Your task to perform on an android device: open a bookmark in the chrome app Image 0: 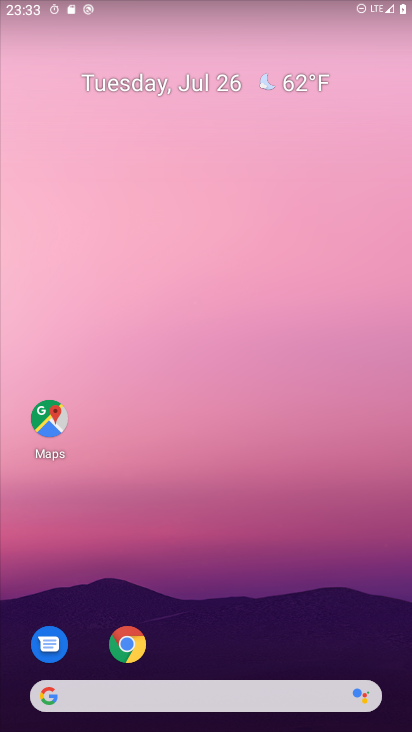
Step 0: click (126, 645)
Your task to perform on an android device: open a bookmark in the chrome app Image 1: 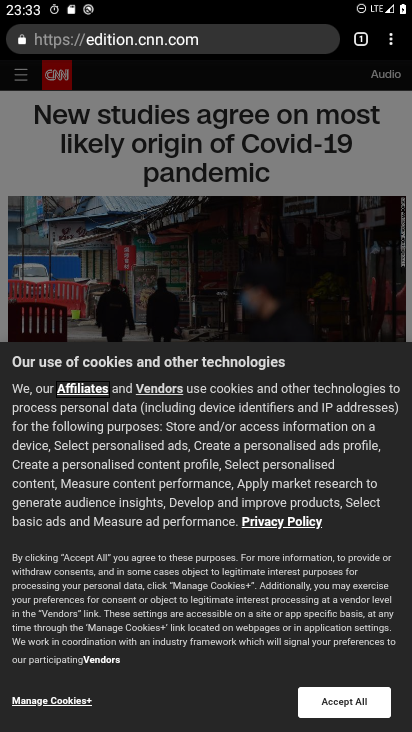
Step 1: click (395, 44)
Your task to perform on an android device: open a bookmark in the chrome app Image 2: 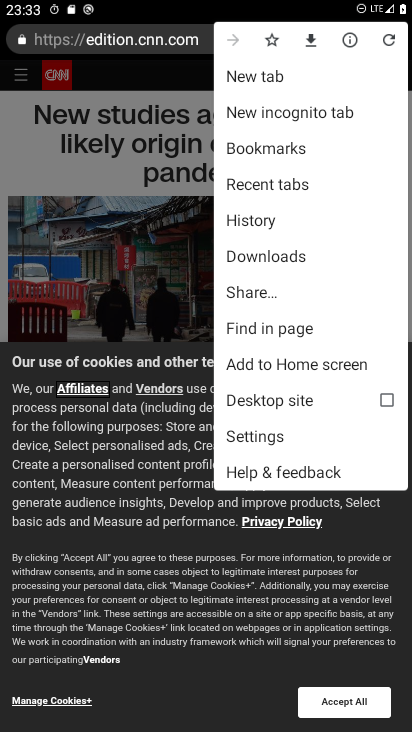
Step 2: click (256, 146)
Your task to perform on an android device: open a bookmark in the chrome app Image 3: 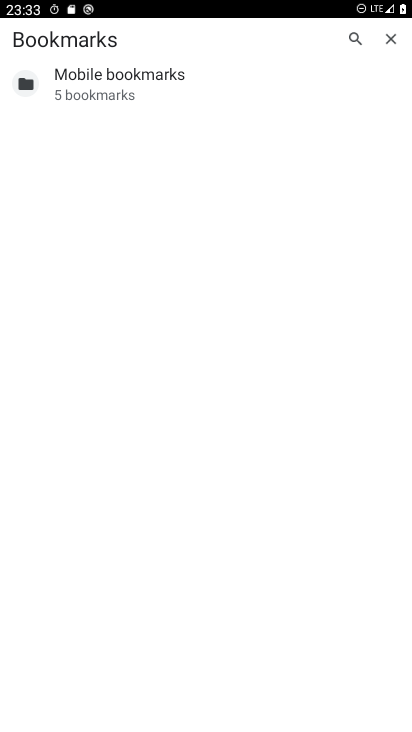
Step 3: click (122, 86)
Your task to perform on an android device: open a bookmark in the chrome app Image 4: 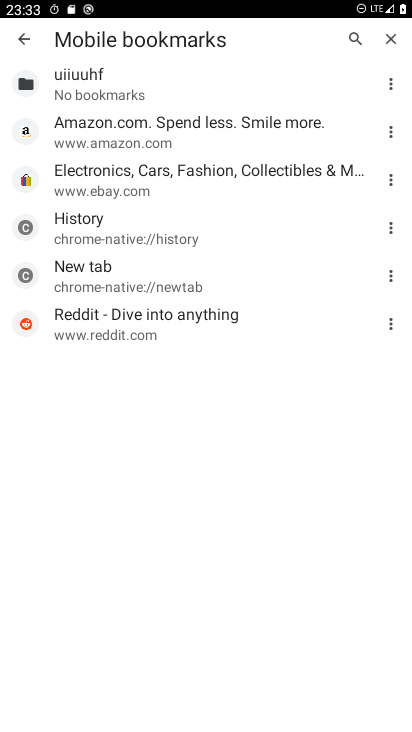
Step 4: click (75, 318)
Your task to perform on an android device: open a bookmark in the chrome app Image 5: 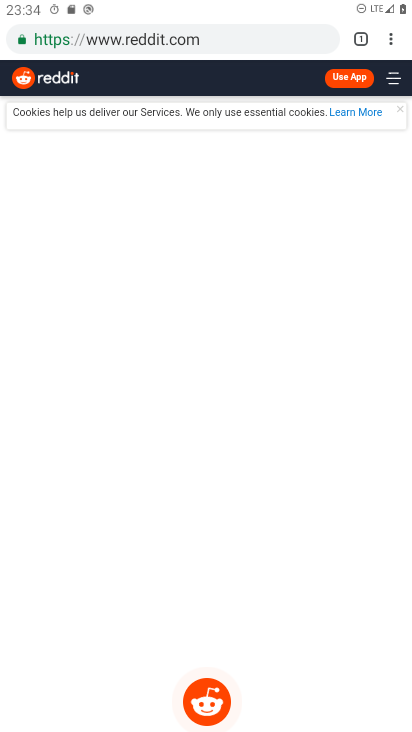
Step 5: task complete